Your task to perform on an android device: change the clock display to analog Image 0: 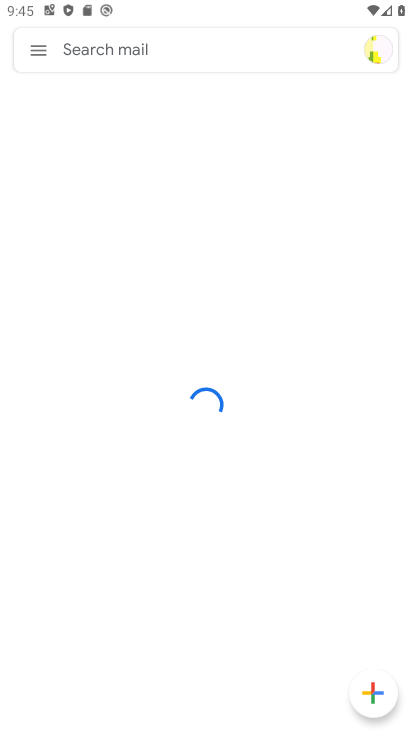
Step 0: press home button
Your task to perform on an android device: change the clock display to analog Image 1: 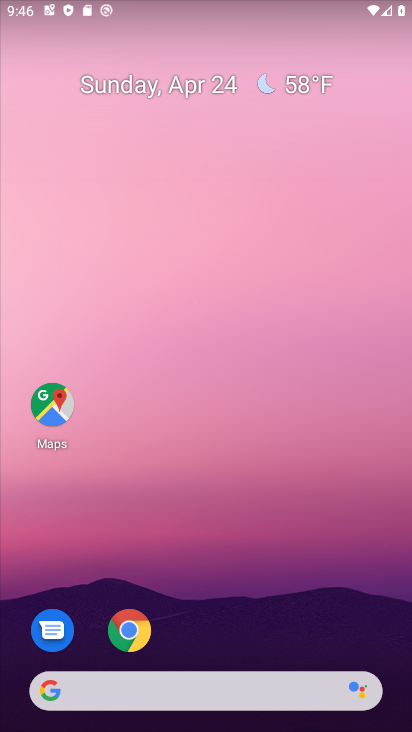
Step 1: drag from (133, 633) to (168, 267)
Your task to perform on an android device: change the clock display to analog Image 2: 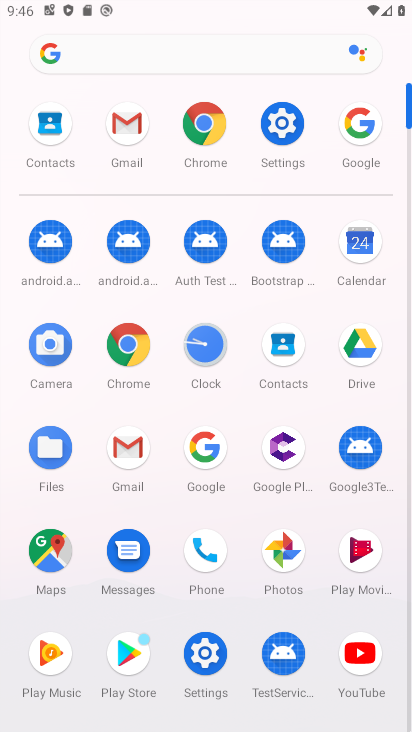
Step 2: click (207, 350)
Your task to perform on an android device: change the clock display to analog Image 3: 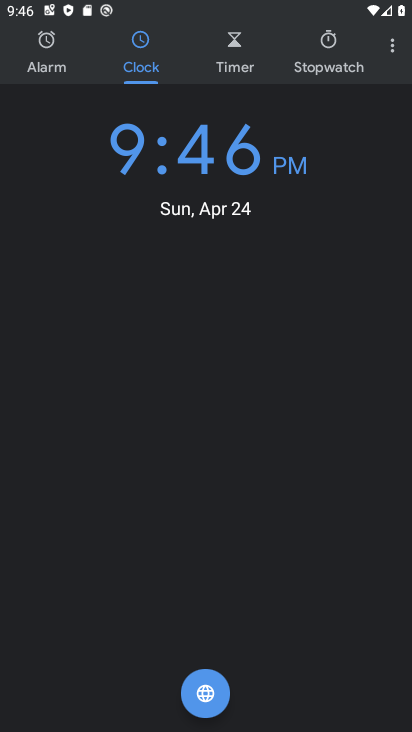
Step 3: click (397, 42)
Your task to perform on an android device: change the clock display to analog Image 4: 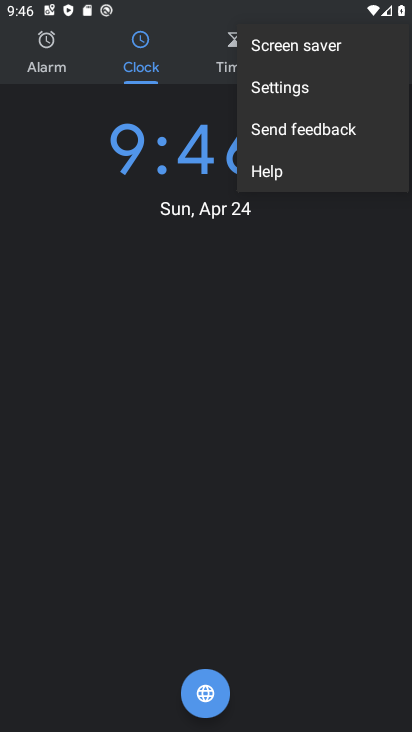
Step 4: click (295, 88)
Your task to perform on an android device: change the clock display to analog Image 5: 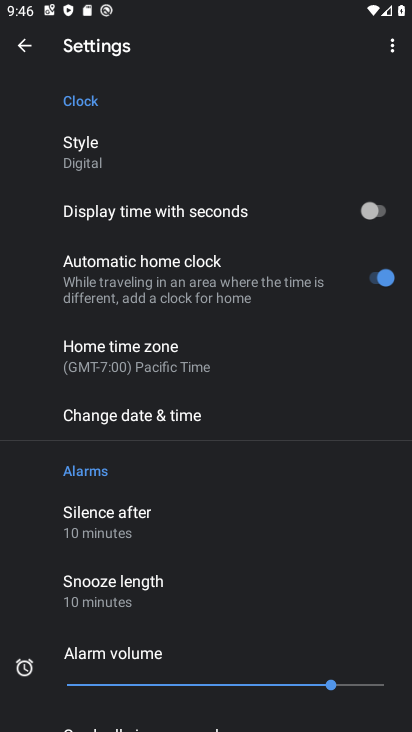
Step 5: click (168, 149)
Your task to perform on an android device: change the clock display to analog Image 6: 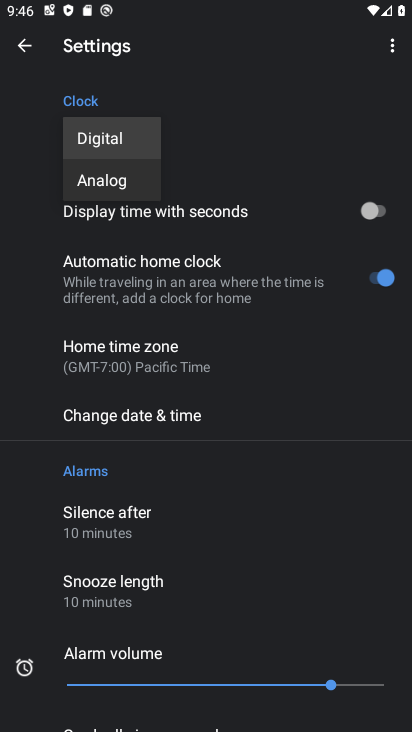
Step 6: click (102, 190)
Your task to perform on an android device: change the clock display to analog Image 7: 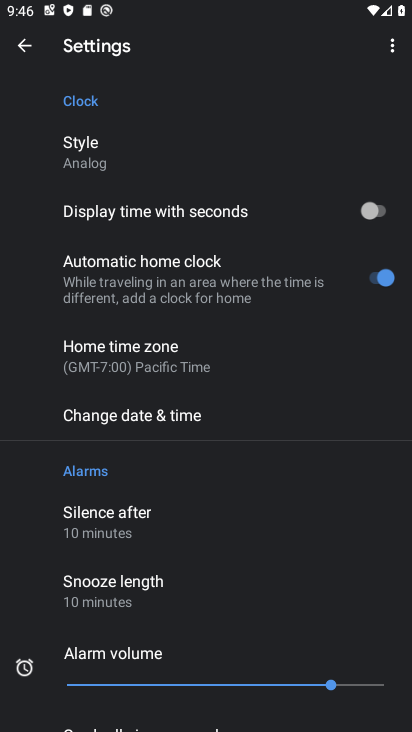
Step 7: task complete